Your task to perform on an android device: choose inbox layout in the gmail app Image 0: 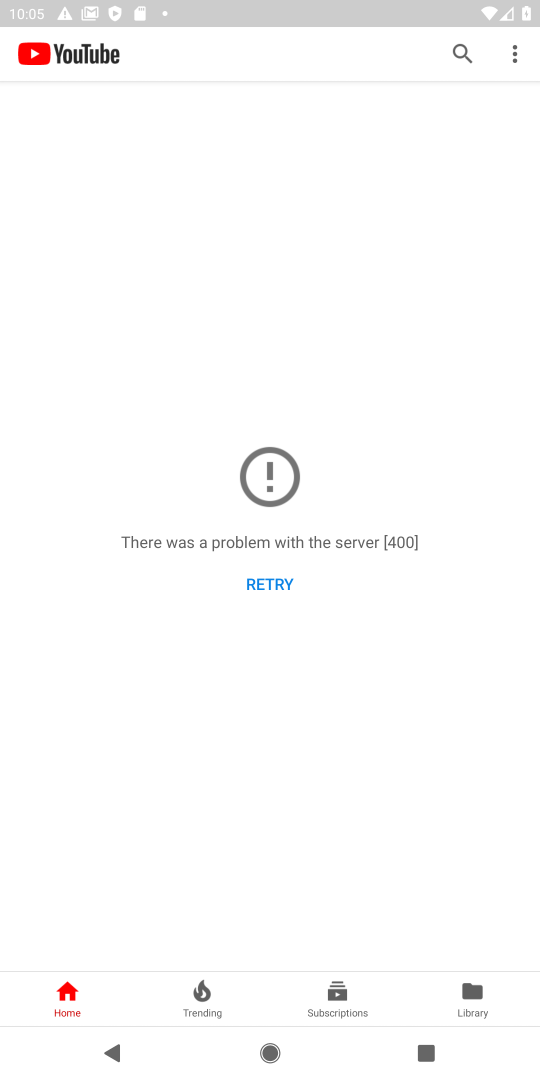
Step 0: click (237, 879)
Your task to perform on an android device: choose inbox layout in the gmail app Image 1: 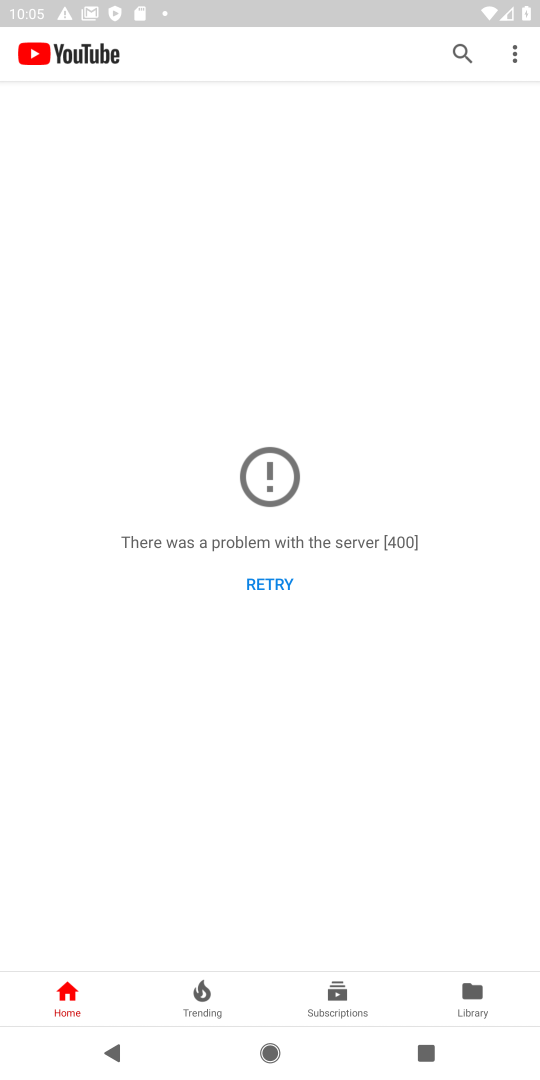
Step 1: press home button
Your task to perform on an android device: choose inbox layout in the gmail app Image 2: 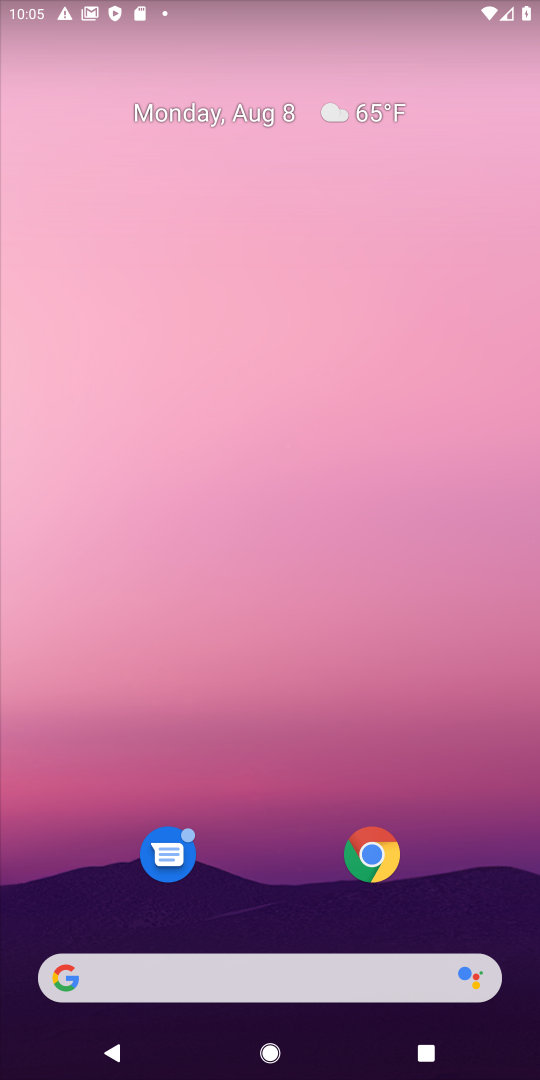
Step 2: drag from (258, 886) to (310, 61)
Your task to perform on an android device: choose inbox layout in the gmail app Image 3: 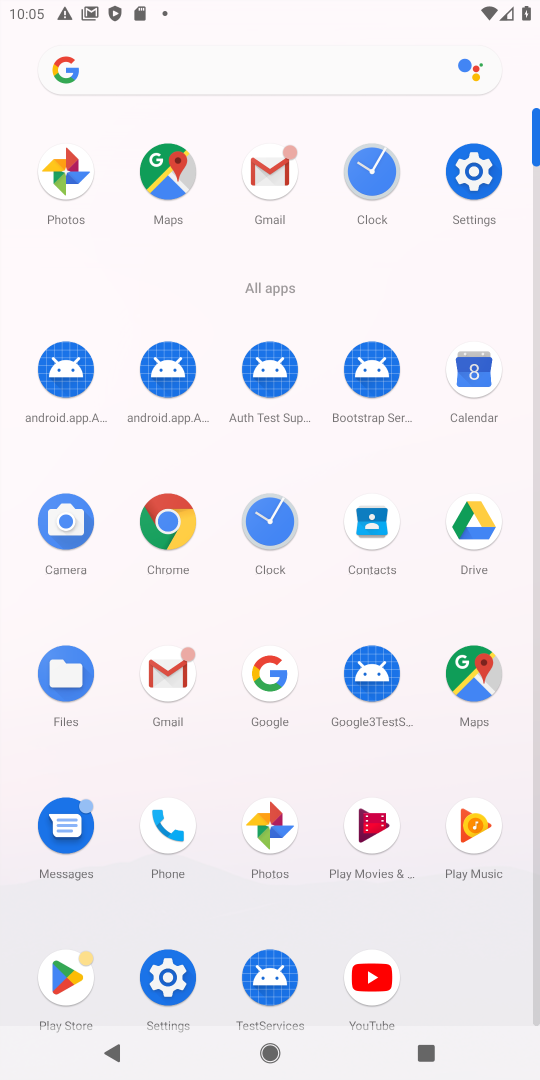
Step 3: click (260, 147)
Your task to perform on an android device: choose inbox layout in the gmail app Image 4: 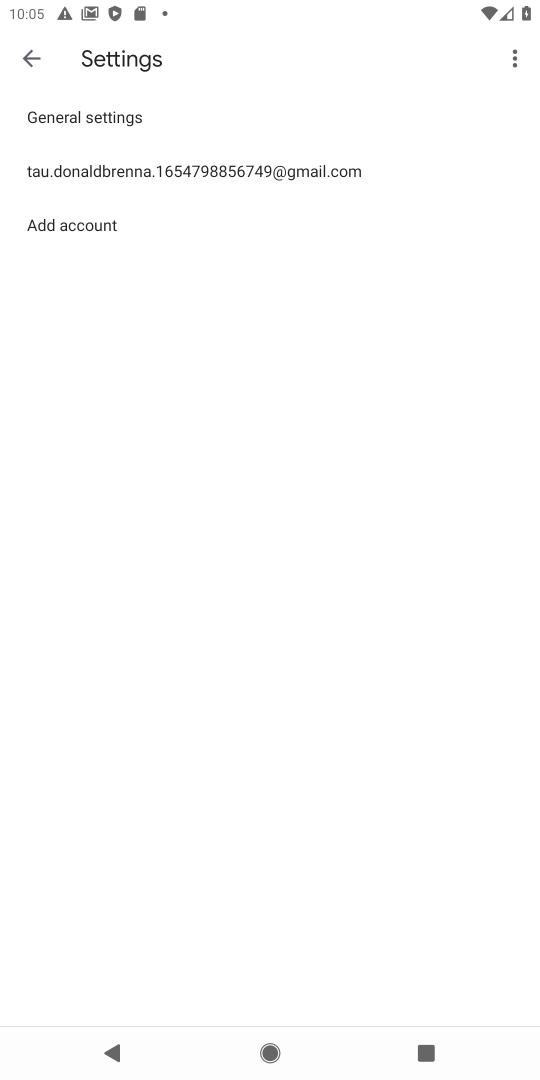
Step 4: click (223, 168)
Your task to perform on an android device: choose inbox layout in the gmail app Image 5: 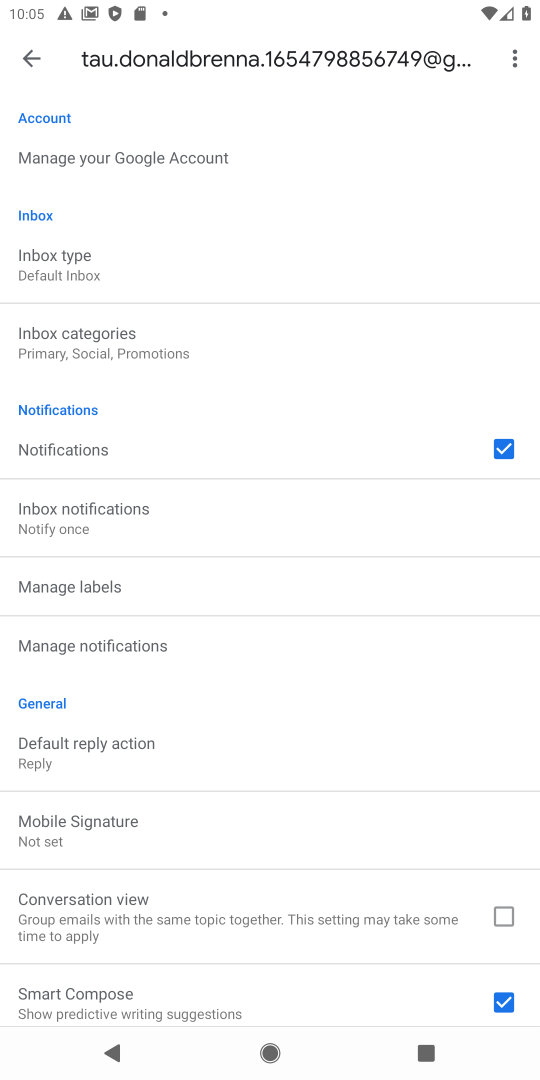
Step 5: click (102, 256)
Your task to perform on an android device: choose inbox layout in the gmail app Image 6: 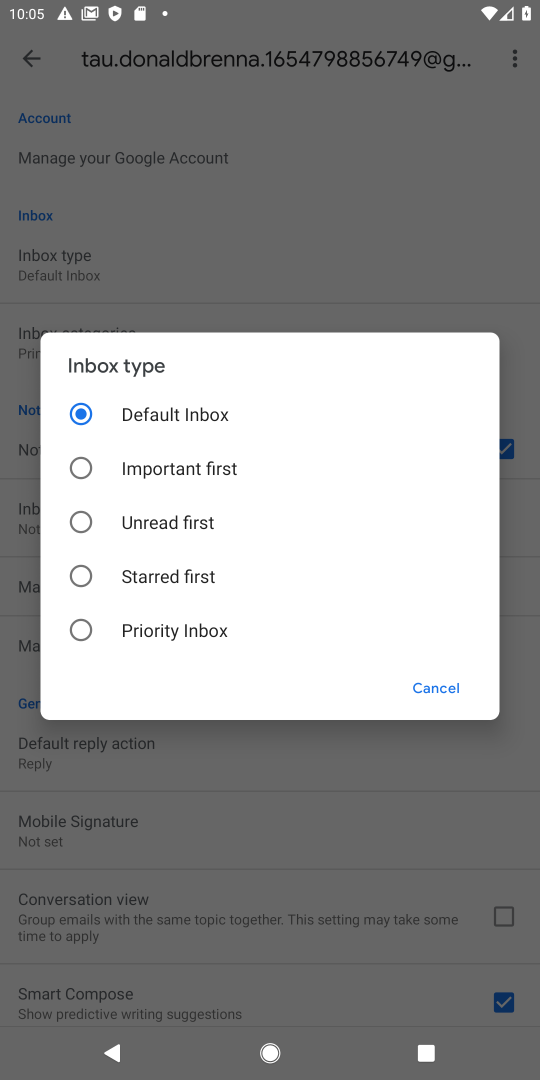
Step 6: click (199, 630)
Your task to perform on an android device: choose inbox layout in the gmail app Image 7: 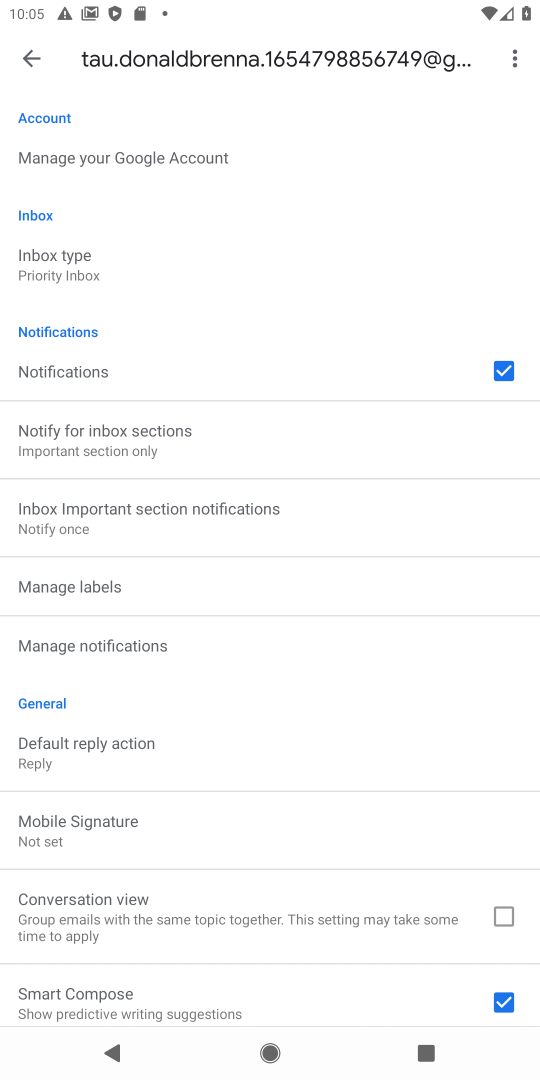
Step 7: task complete